Your task to perform on an android device: Open Reddit.com Image 0: 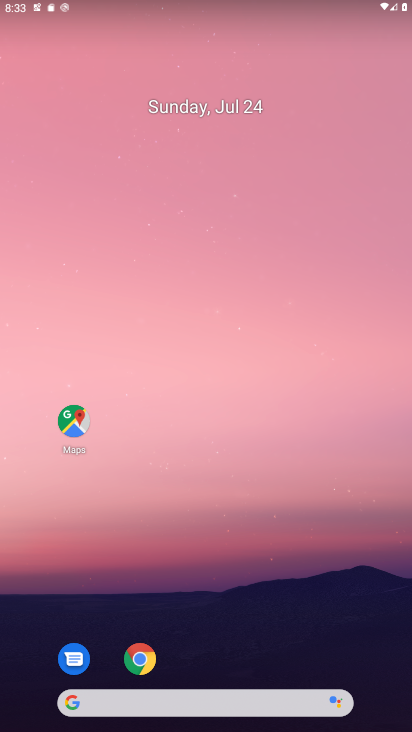
Step 0: click (133, 658)
Your task to perform on an android device: Open Reddit.com Image 1: 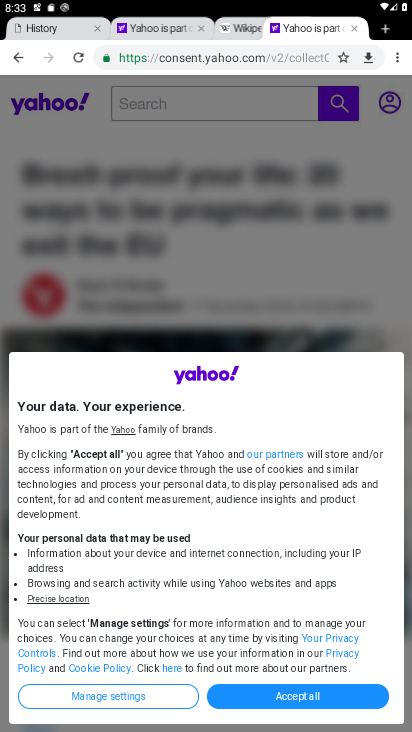
Step 1: click (399, 53)
Your task to perform on an android device: Open Reddit.com Image 2: 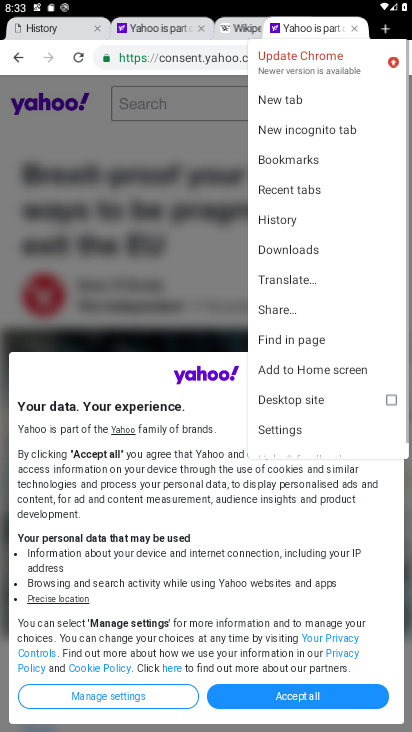
Step 2: click (269, 95)
Your task to perform on an android device: Open Reddit.com Image 3: 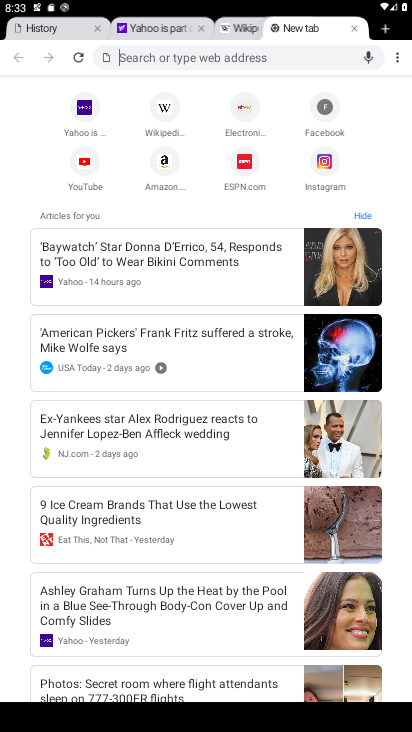
Step 3: type "Reddit.com"
Your task to perform on an android device: Open Reddit.com Image 4: 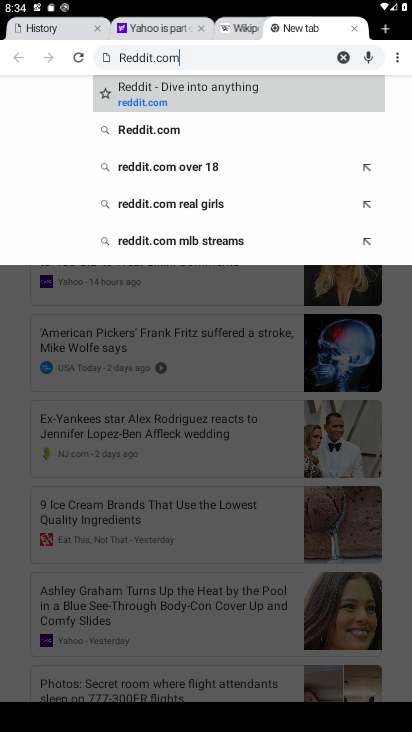
Step 4: type ""
Your task to perform on an android device: Open Reddit.com Image 5: 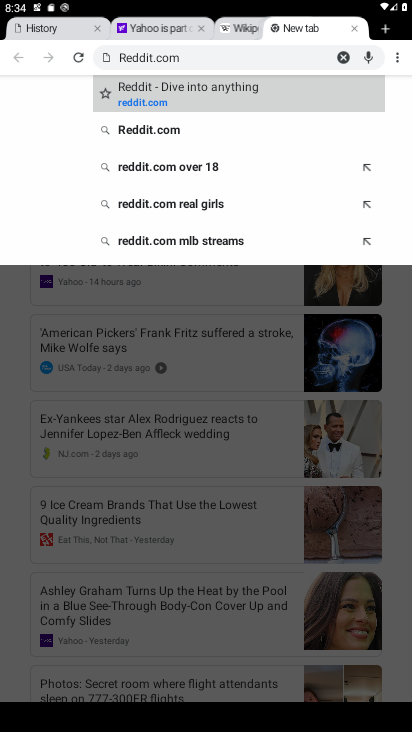
Step 5: click (219, 86)
Your task to perform on an android device: Open Reddit.com Image 6: 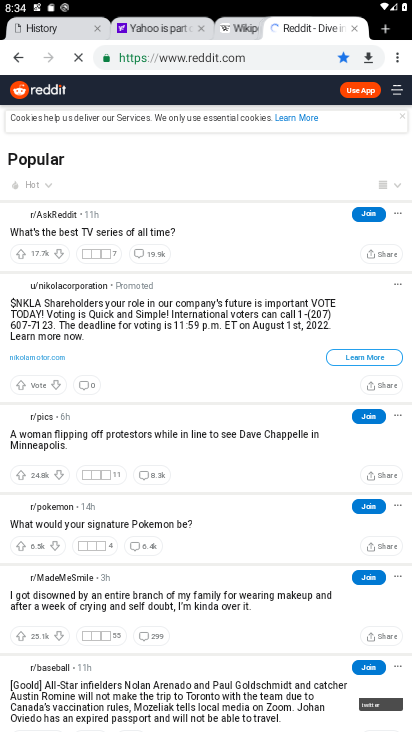
Step 6: task complete